Your task to perform on an android device: turn pop-ups on in chrome Image 0: 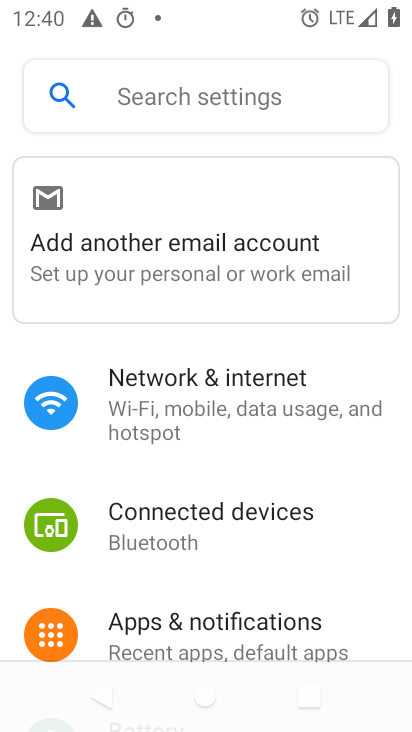
Step 0: press back button
Your task to perform on an android device: turn pop-ups on in chrome Image 1: 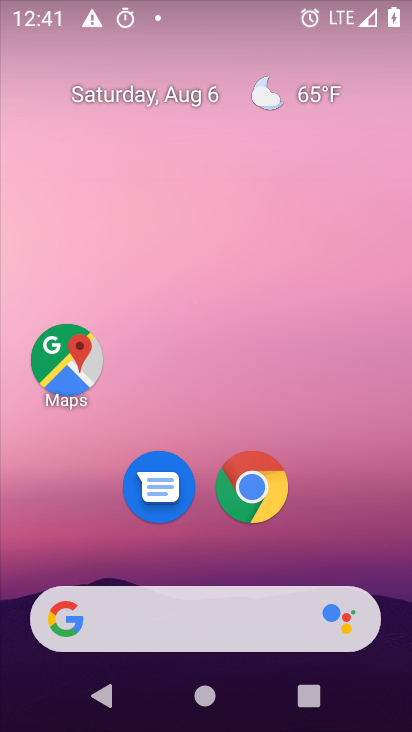
Step 1: click (253, 491)
Your task to perform on an android device: turn pop-ups on in chrome Image 2: 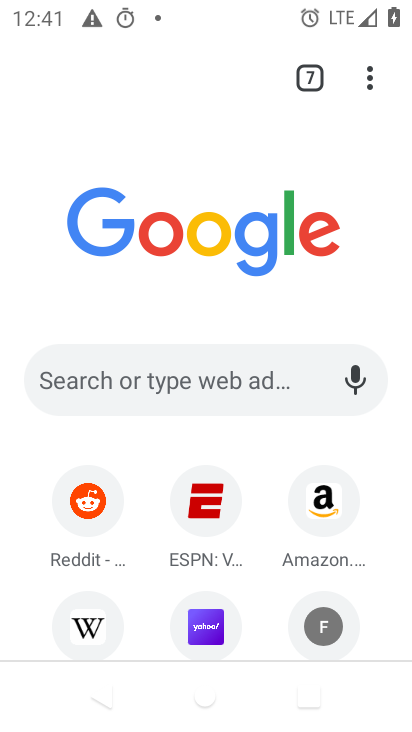
Step 2: drag from (376, 86) to (179, 543)
Your task to perform on an android device: turn pop-ups on in chrome Image 3: 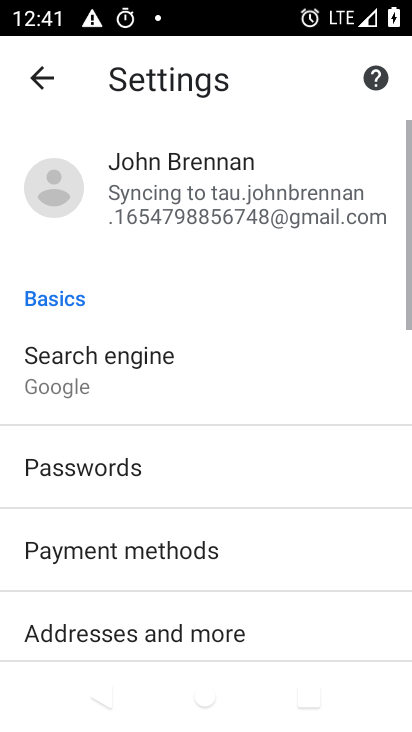
Step 3: drag from (127, 658) to (236, 143)
Your task to perform on an android device: turn pop-ups on in chrome Image 4: 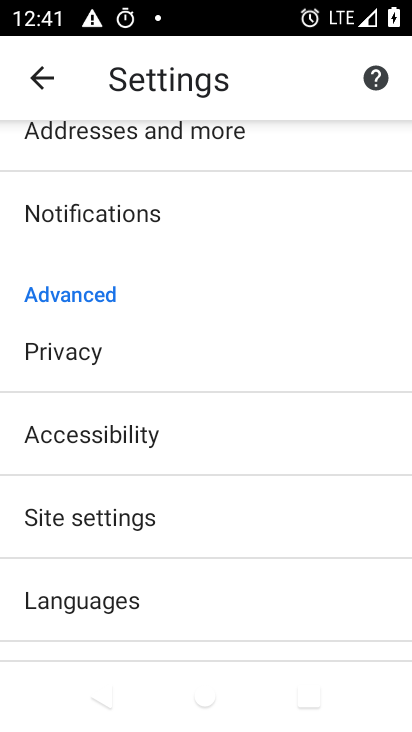
Step 4: click (158, 520)
Your task to perform on an android device: turn pop-ups on in chrome Image 5: 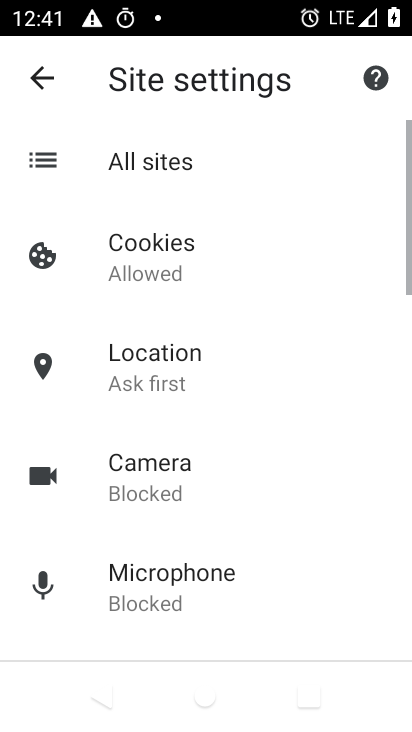
Step 5: drag from (181, 529) to (315, 17)
Your task to perform on an android device: turn pop-ups on in chrome Image 6: 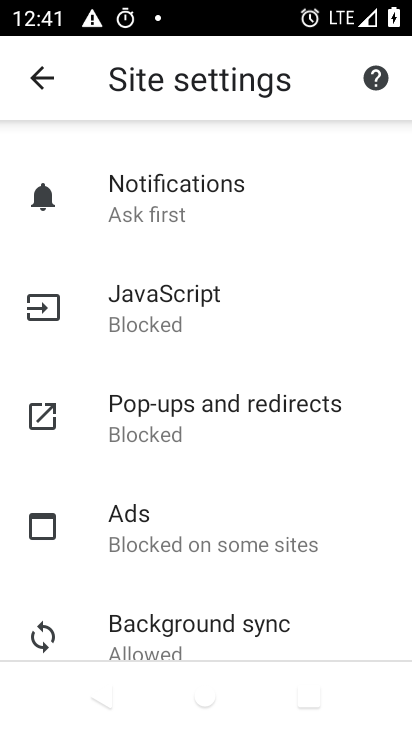
Step 6: click (210, 426)
Your task to perform on an android device: turn pop-ups on in chrome Image 7: 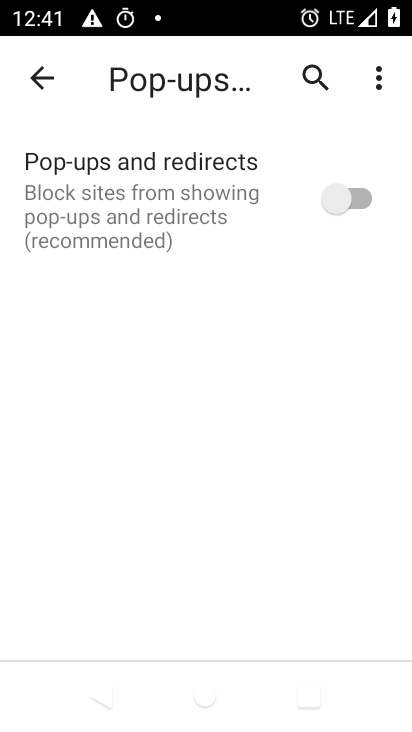
Step 7: click (367, 192)
Your task to perform on an android device: turn pop-ups on in chrome Image 8: 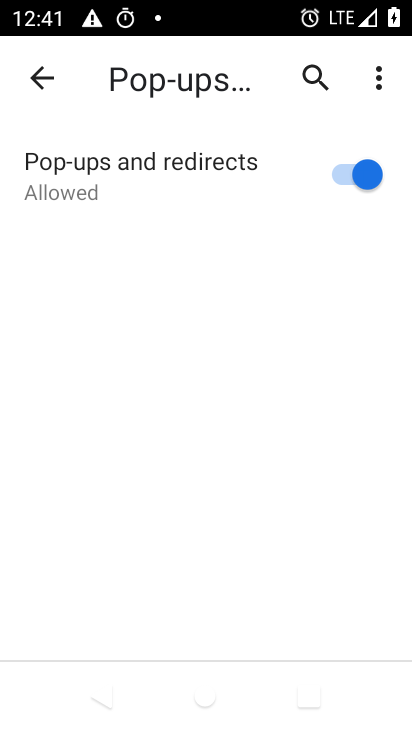
Step 8: task complete